Your task to perform on an android device: Open ESPN.com Image 0: 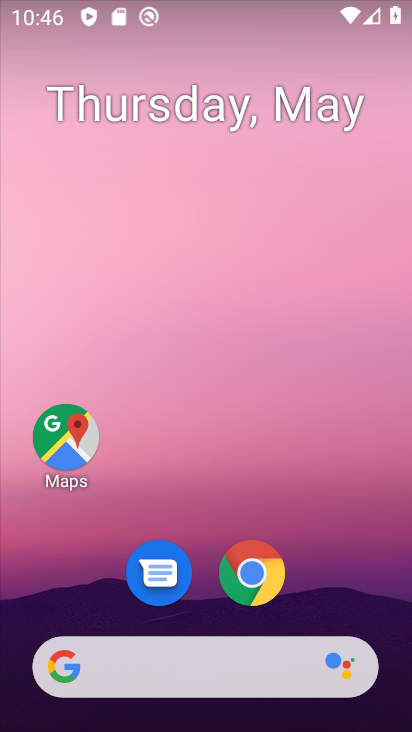
Step 0: click (257, 584)
Your task to perform on an android device: Open ESPN.com Image 1: 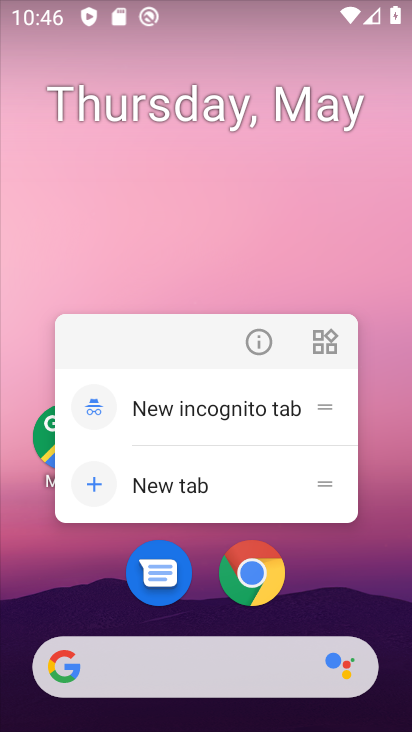
Step 1: click (245, 573)
Your task to perform on an android device: Open ESPN.com Image 2: 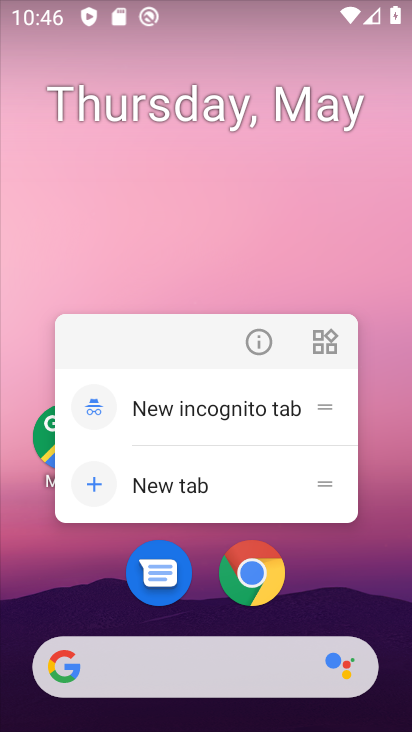
Step 2: click (255, 573)
Your task to perform on an android device: Open ESPN.com Image 3: 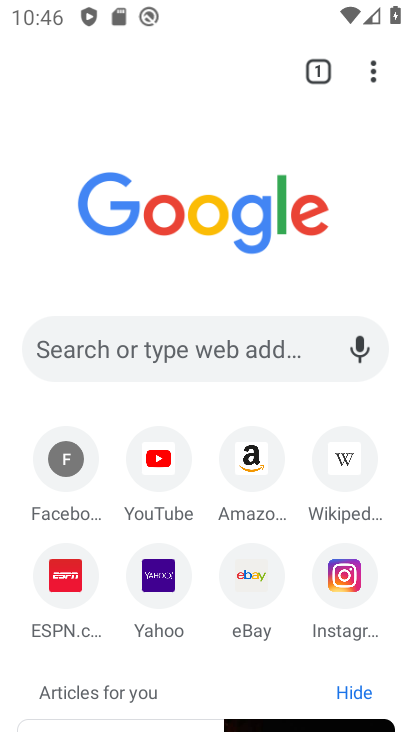
Step 3: click (64, 584)
Your task to perform on an android device: Open ESPN.com Image 4: 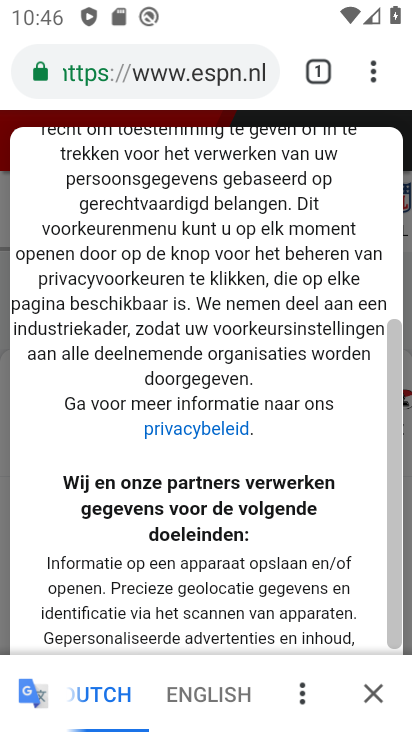
Step 4: click (191, 697)
Your task to perform on an android device: Open ESPN.com Image 5: 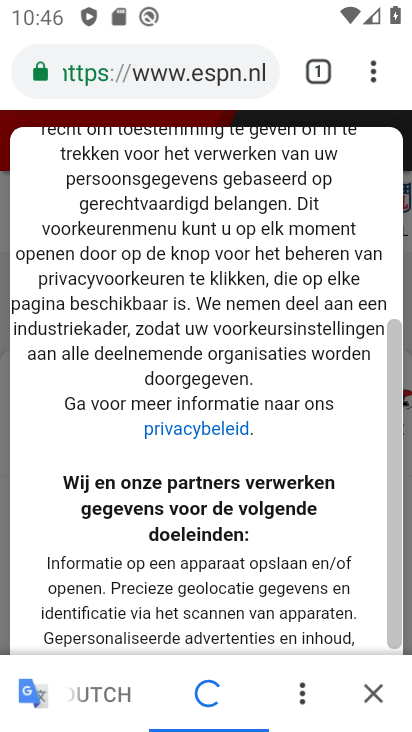
Step 5: drag from (184, 631) to (280, 226)
Your task to perform on an android device: Open ESPN.com Image 6: 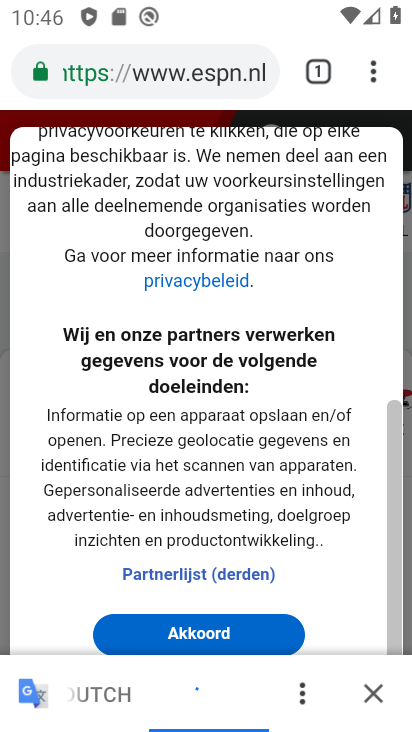
Step 6: click (226, 631)
Your task to perform on an android device: Open ESPN.com Image 7: 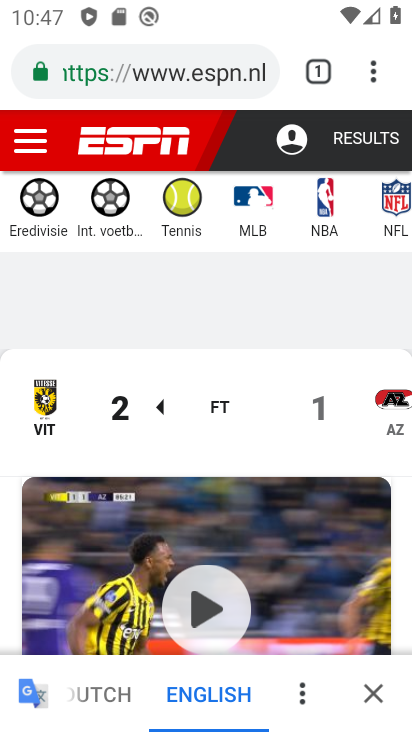
Step 7: click (379, 700)
Your task to perform on an android device: Open ESPN.com Image 8: 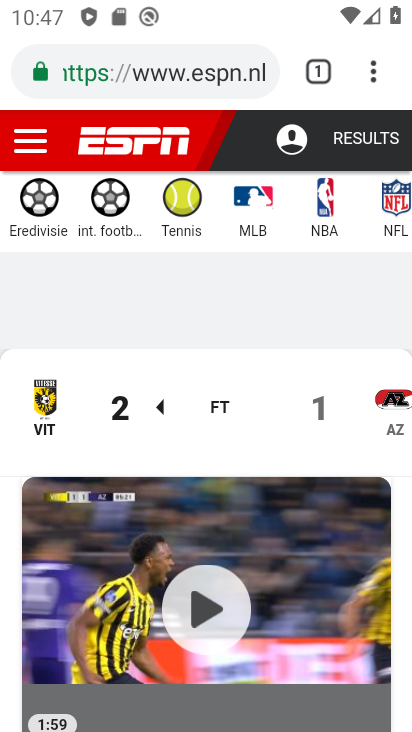
Step 8: task complete